Your task to perform on an android device: Go to sound settings Image 0: 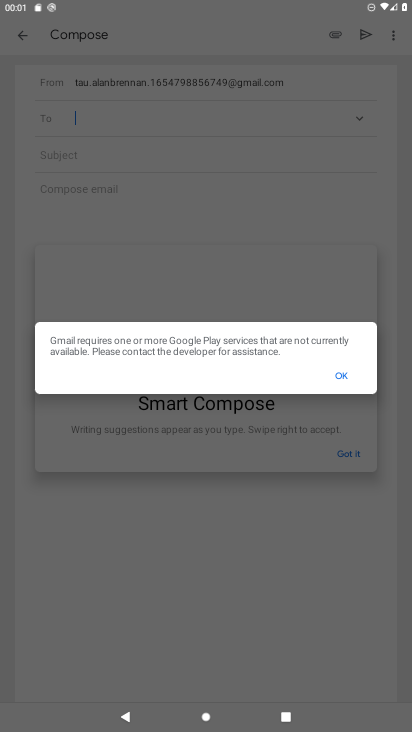
Step 0: press home button
Your task to perform on an android device: Go to sound settings Image 1: 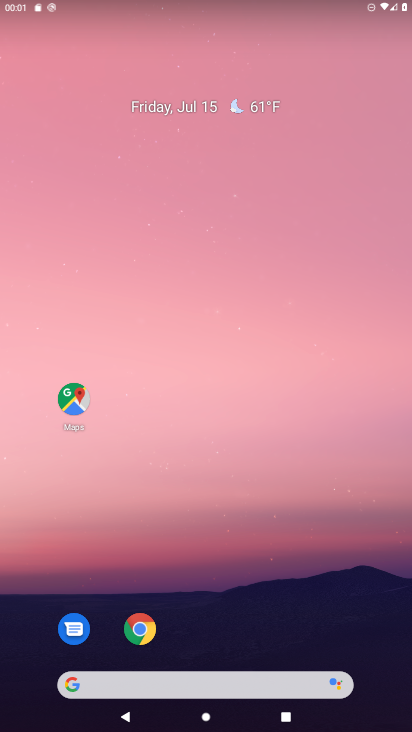
Step 1: drag from (196, 622) to (229, 135)
Your task to perform on an android device: Go to sound settings Image 2: 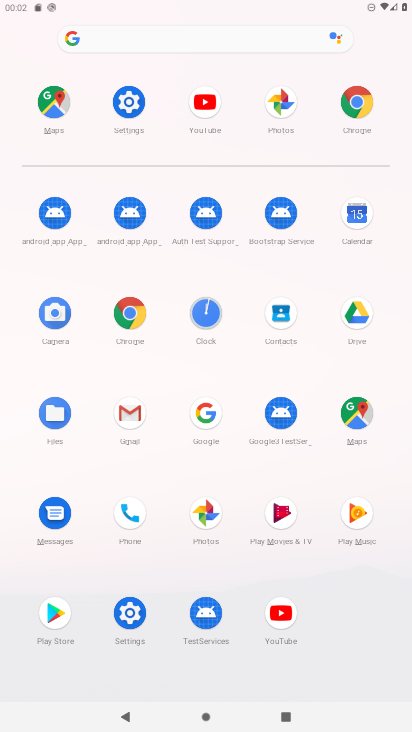
Step 2: click (134, 614)
Your task to perform on an android device: Go to sound settings Image 3: 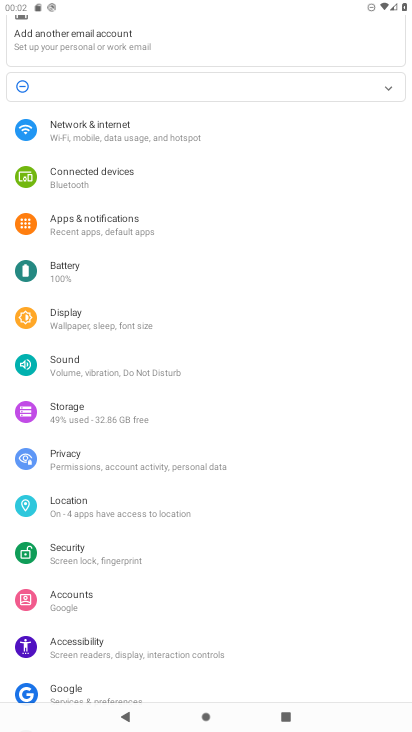
Step 3: click (80, 356)
Your task to perform on an android device: Go to sound settings Image 4: 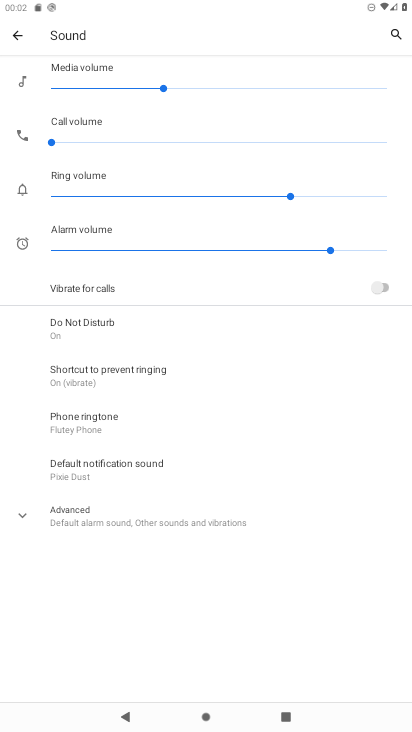
Step 4: task complete